Your task to perform on an android device: turn pop-ups off in chrome Image 0: 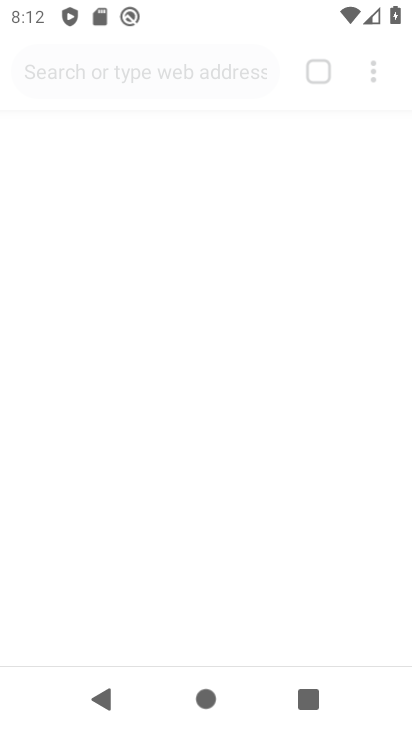
Step 0: drag from (178, 541) to (257, 86)
Your task to perform on an android device: turn pop-ups off in chrome Image 1: 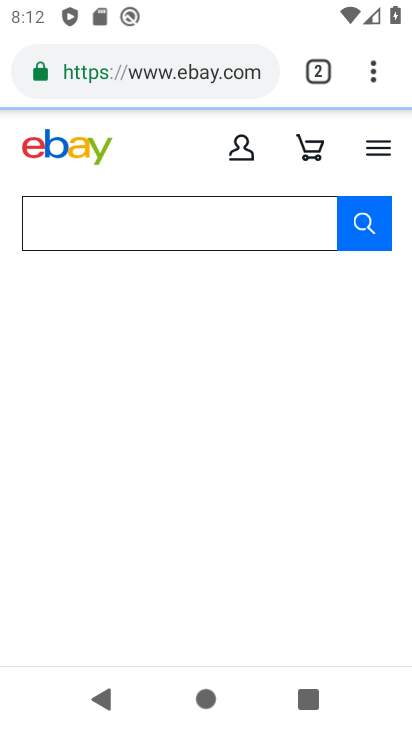
Step 1: press back button
Your task to perform on an android device: turn pop-ups off in chrome Image 2: 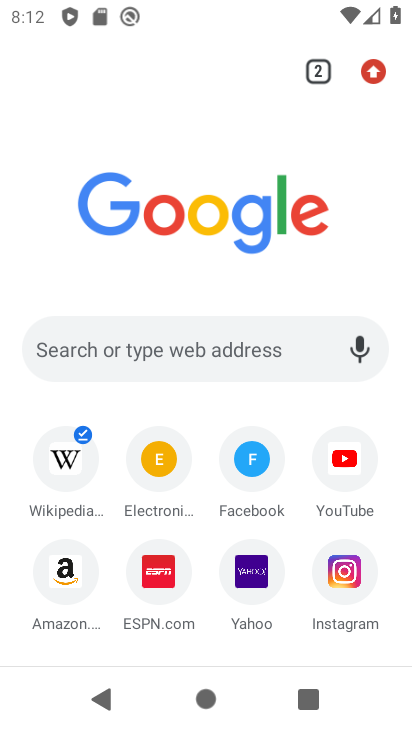
Step 2: press back button
Your task to perform on an android device: turn pop-ups off in chrome Image 3: 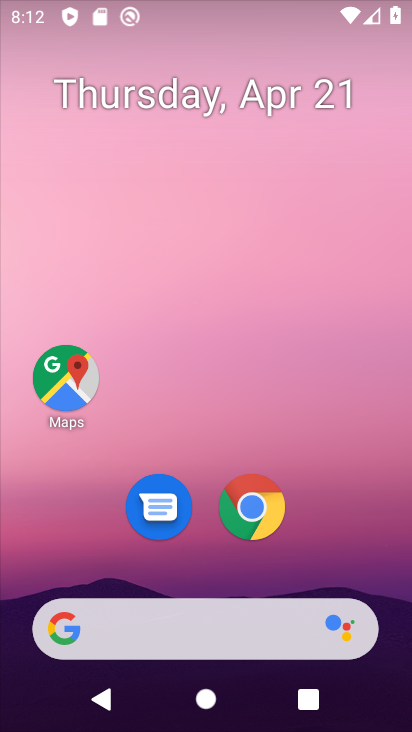
Step 3: click (268, 490)
Your task to perform on an android device: turn pop-ups off in chrome Image 4: 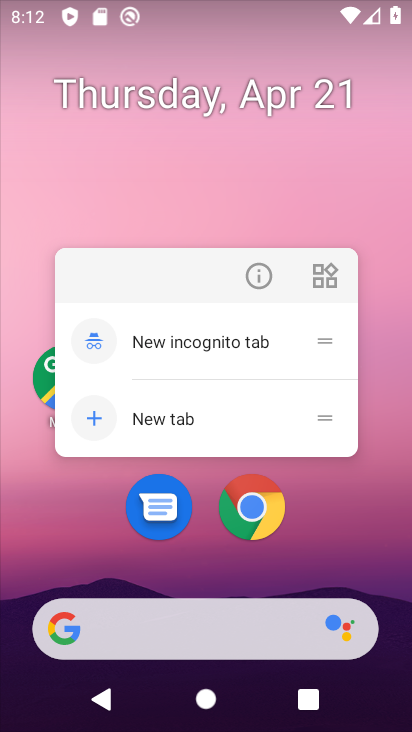
Step 4: click (251, 497)
Your task to perform on an android device: turn pop-ups off in chrome Image 5: 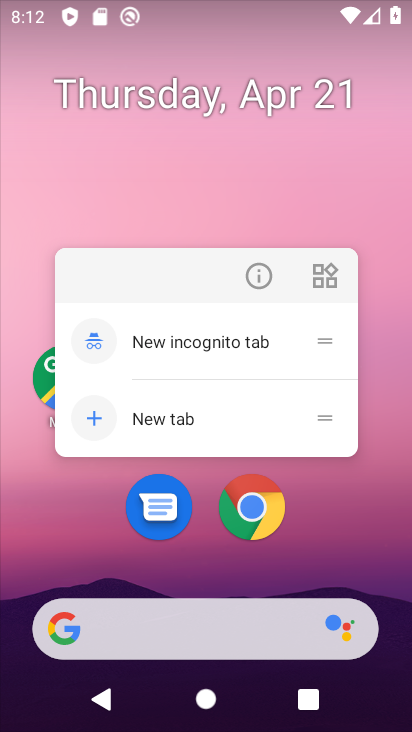
Step 5: click (263, 510)
Your task to perform on an android device: turn pop-ups off in chrome Image 6: 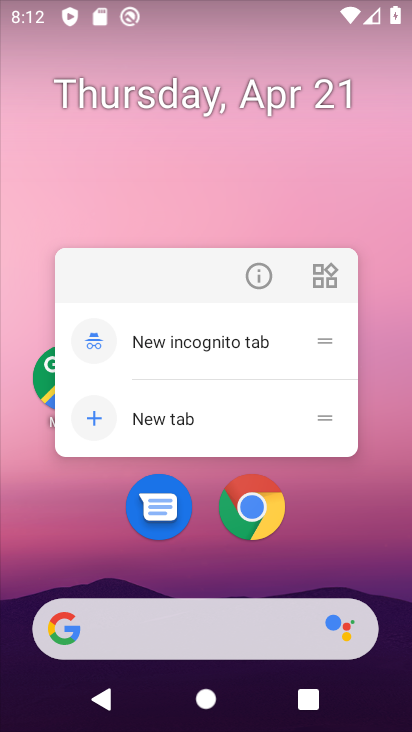
Step 6: click (251, 504)
Your task to perform on an android device: turn pop-ups off in chrome Image 7: 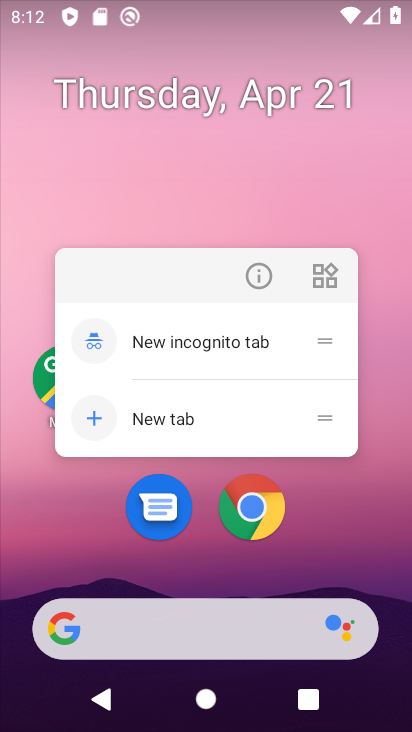
Step 7: click (249, 517)
Your task to perform on an android device: turn pop-ups off in chrome Image 8: 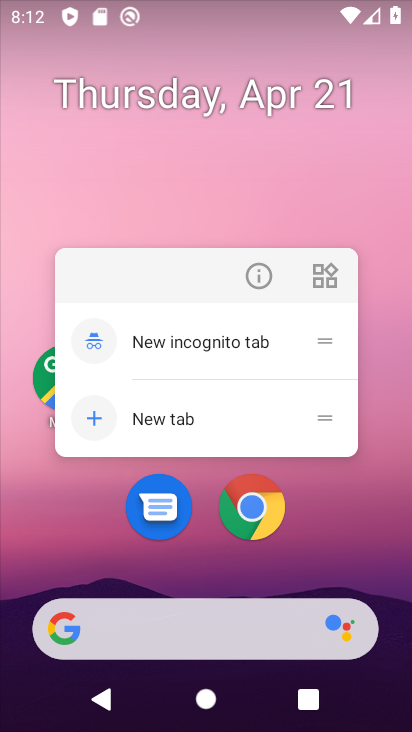
Step 8: click (247, 516)
Your task to perform on an android device: turn pop-ups off in chrome Image 9: 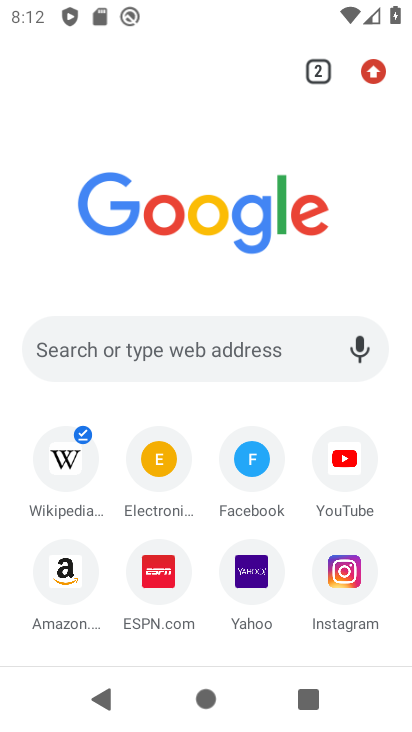
Step 9: drag from (373, 65) to (156, 500)
Your task to perform on an android device: turn pop-ups off in chrome Image 10: 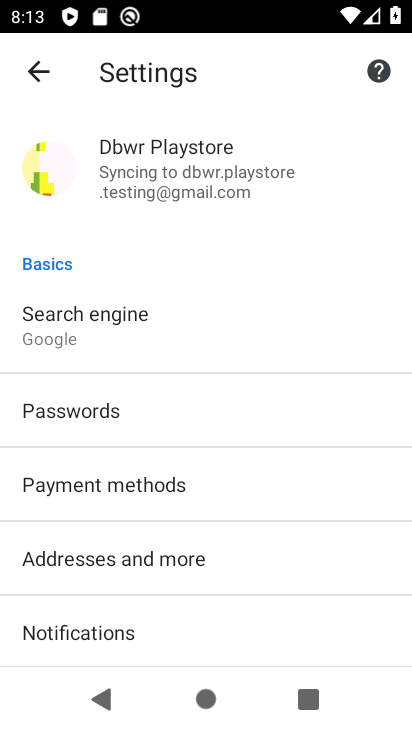
Step 10: drag from (174, 556) to (291, 119)
Your task to perform on an android device: turn pop-ups off in chrome Image 11: 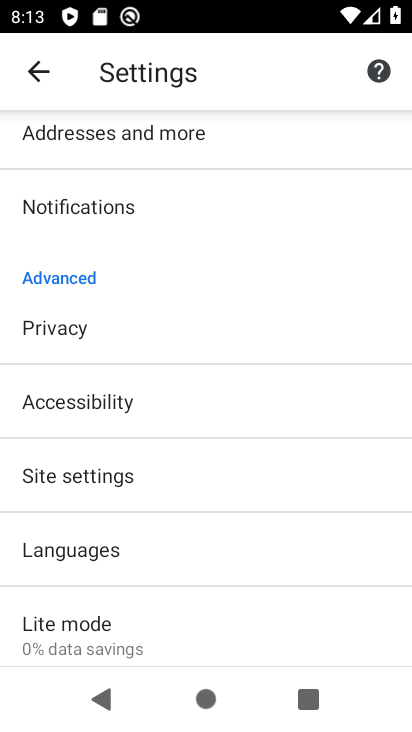
Step 11: click (58, 478)
Your task to perform on an android device: turn pop-ups off in chrome Image 12: 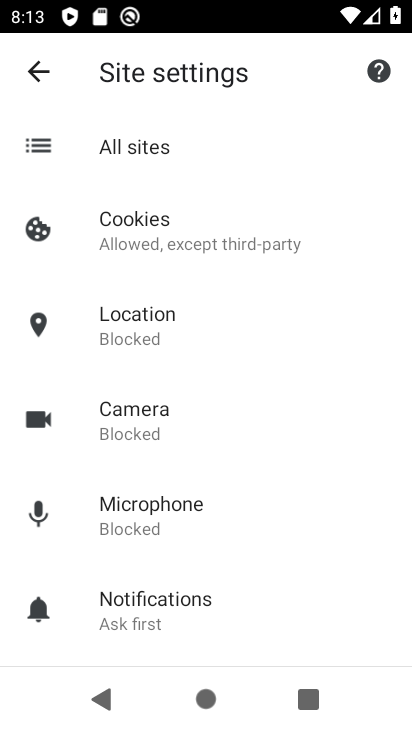
Step 12: drag from (165, 608) to (340, 30)
Your task to perform on an android device: turn pop-ups off in chrome Image 13: 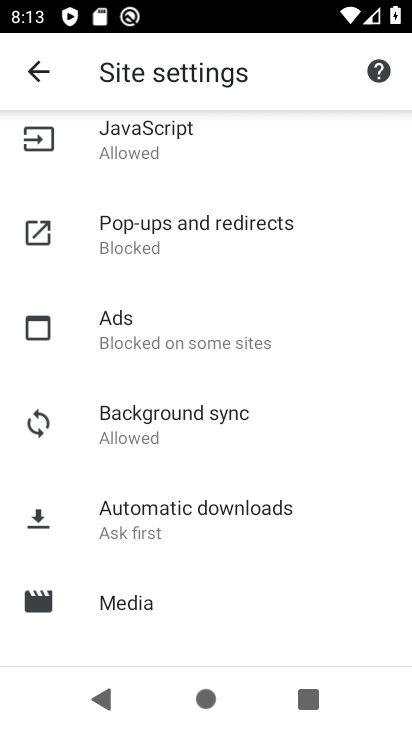
Step 13: click (162, 228)
Your task to perform on an android device: turn pop-ups off in chrome Image 14: 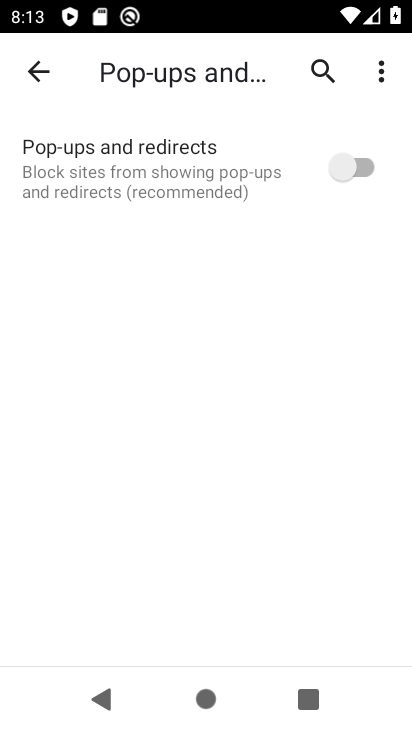
Step 14: task complete